Your task to perform on an android device: turn off smart reply in the gmail app Image 0: 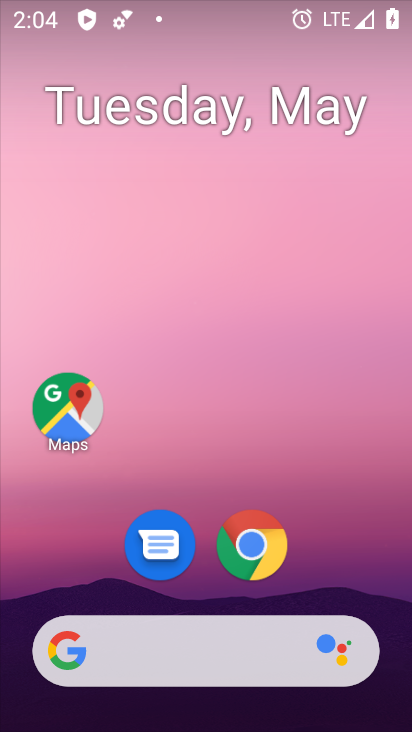
Step 0: drag from (355, 564) to (267, 30)
Your task to perform on an android device: turn off smart reply in the gmail app Image 1: 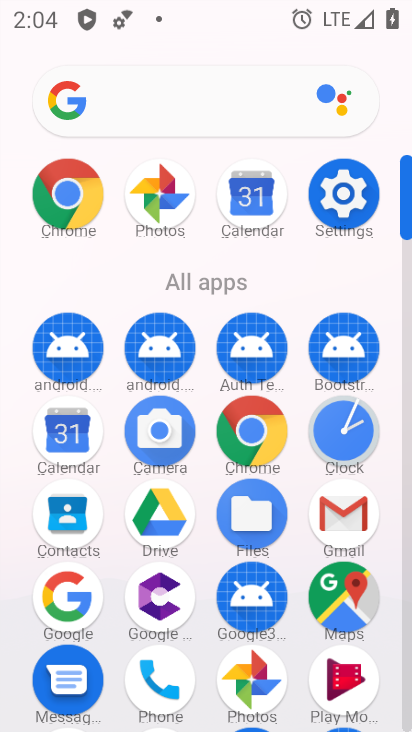
Step 1: drag from (7, 601) to (0, 229)
Your task to perform on an android device: turn off smart reply in the gmail app Image 2: 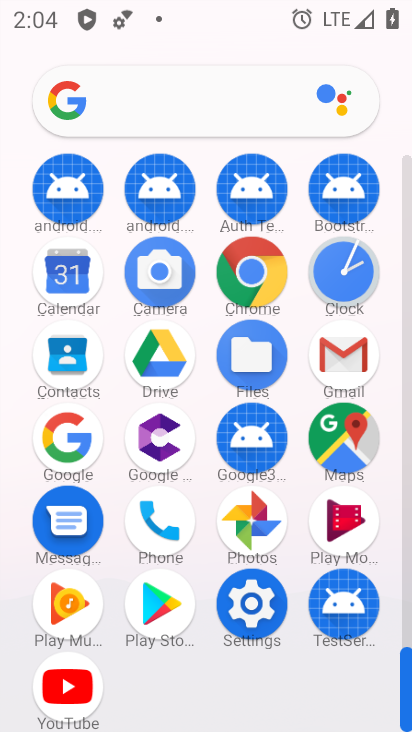
Step 2: click (340, 330)
Your task to perform on an android device: turn off smart reply in the gmail app Image 3: 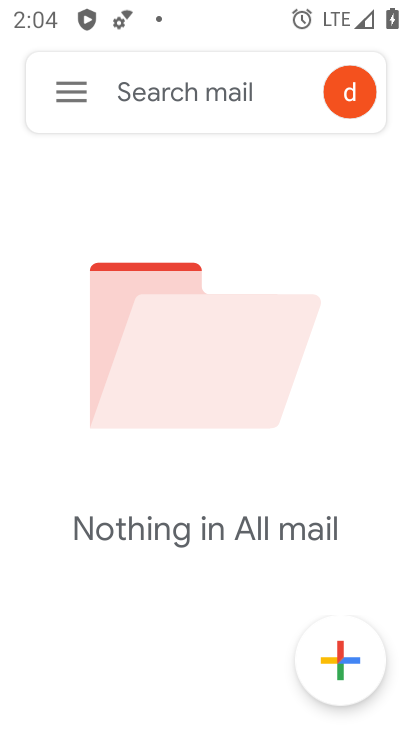
Step 3: click (75, 87)
Your task to perform on an android device: turn off smart reply in the gmail app Image 4: 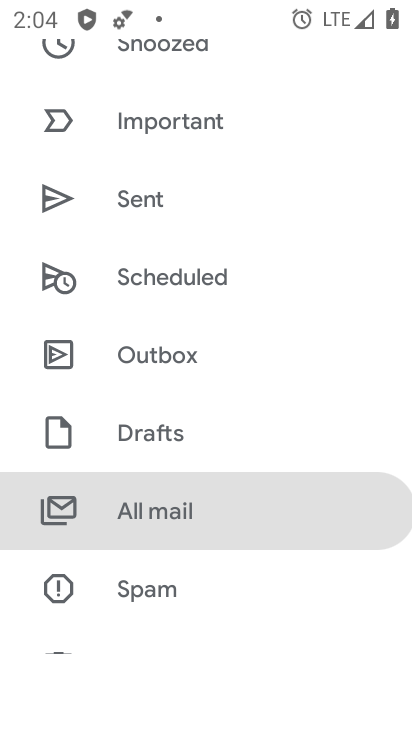
Step 4: drag from (214, 609) to (241, 88)
Your task to perform on an android device: turn off smart reply in the gmail app Image 5: 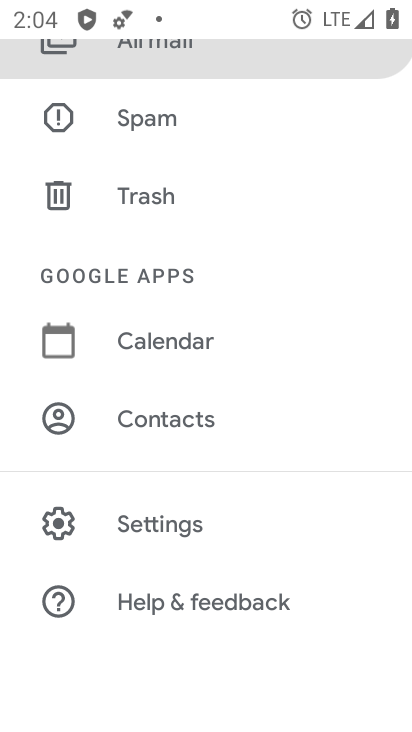
Step 5: click (180, 522)
Your task to perform on an android device: turn off smart reply in the gmail app Image 6: 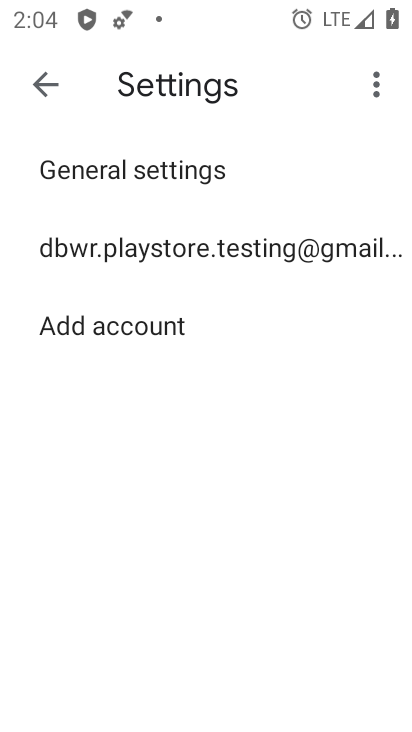
Step 6: click (189, 253)
Your task to perform on an android device: turn off smart reply in the gmail app Image 7: 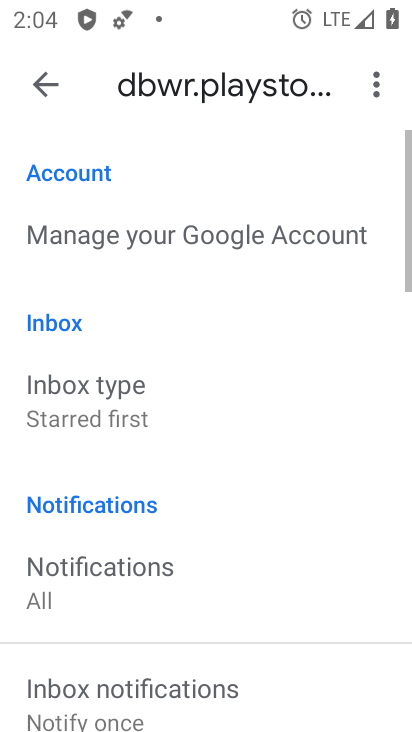
Step 7: drag from (303, 589) to (281, 130)
Your task to perform on an android device: turn off smart reply in the gmail app Image 8: 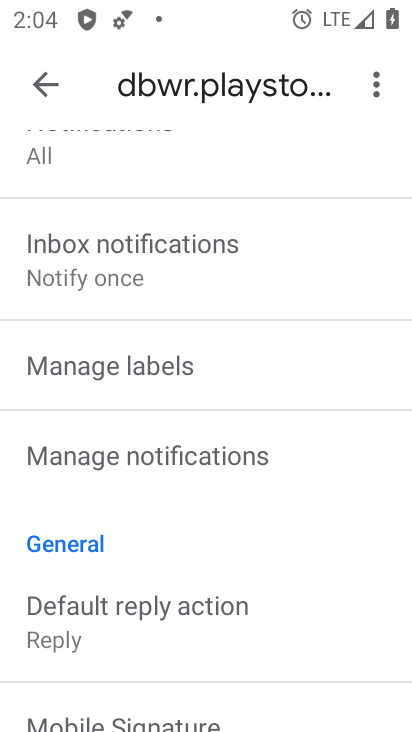
Step 8: drag from (288, 617) to (297, 160)
Your task to perform on an android device: turn off smart reply in the gmail app Image 9: 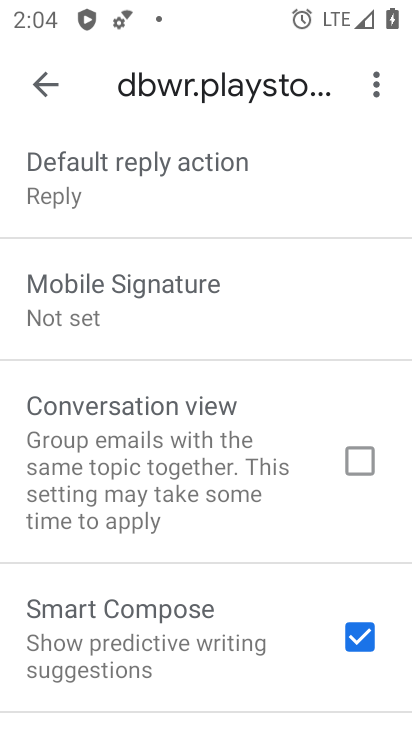
Step 9: drag from (245, 649) to (257, 272)
Your task to perform on an android device: turn off smart reply in the gmail app Image 10: 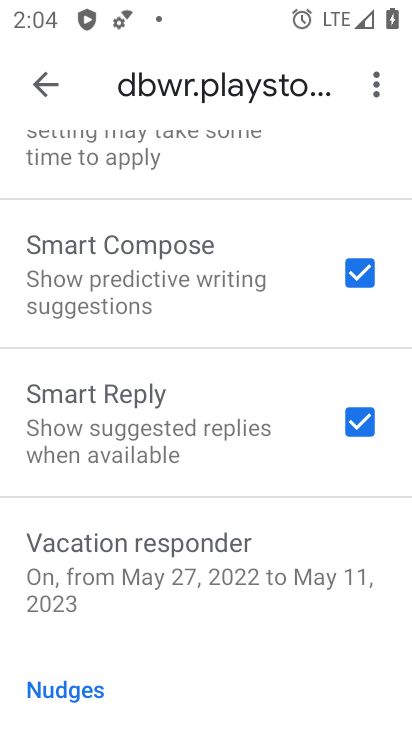
Step 10: click (357, 415)
Your task to perform on an android device: turn off smart reply in the gmail app Image 11: 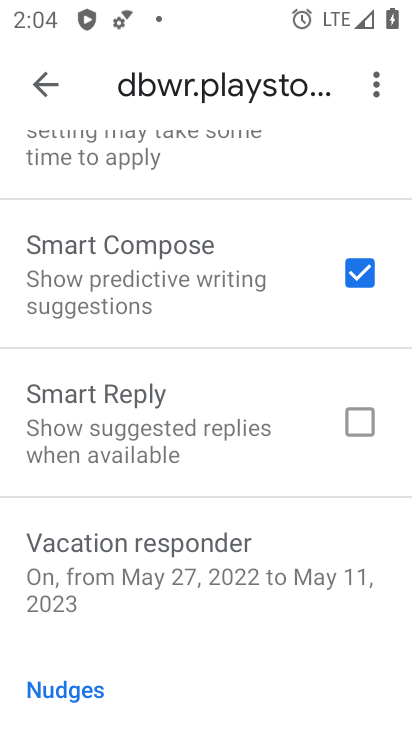
Step 11: task complete